Your task to perform on an android device: Go to Google Image 0: 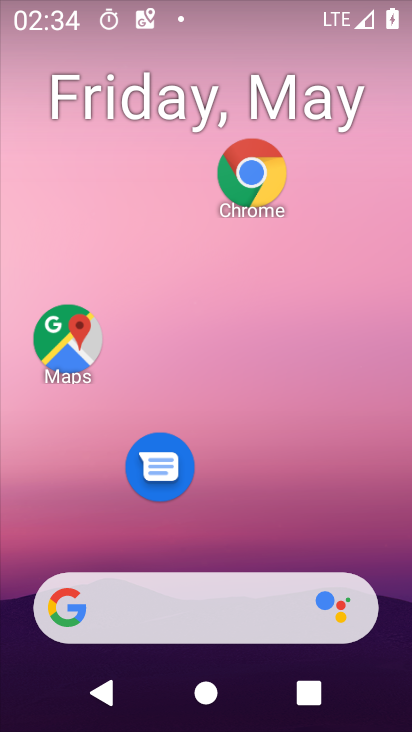
Step 0: drag from (255, 652) to (285, 221)
Your task to perform on an android device: Go to Google Image 1: 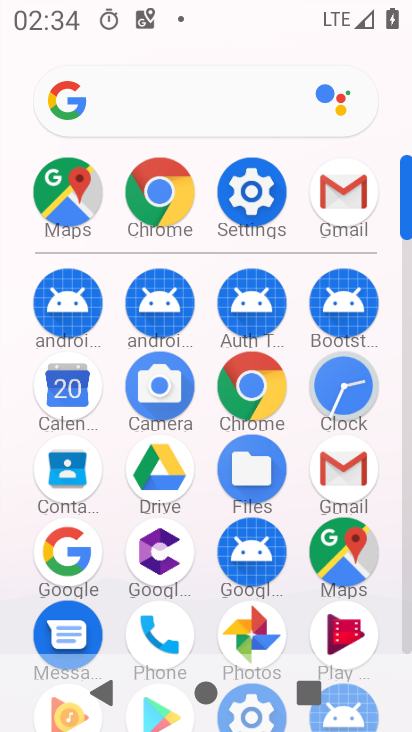
Step 1: click (71, 93)
Your task to perform on an android device: Go to Google Image 2: 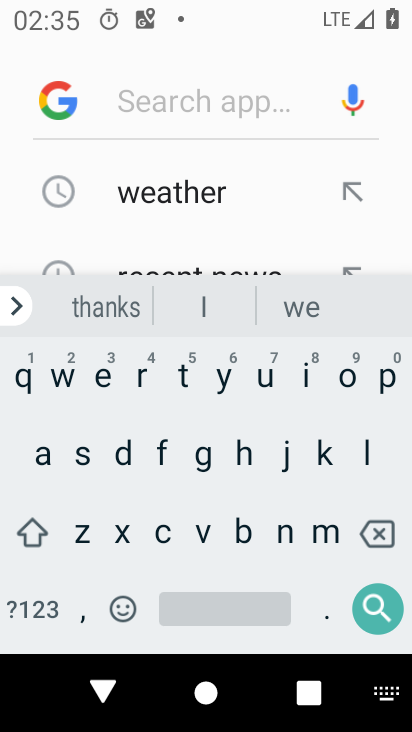
Step 2: click (51, 103)
Your task to perform on an android device: Go to Google Image 3: 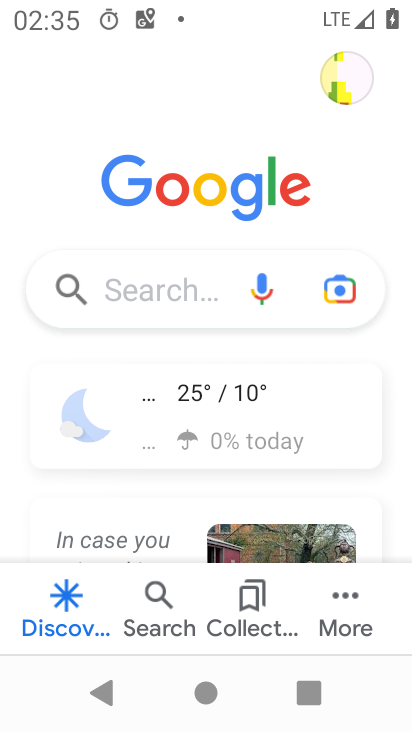
Step 3: task complete